Your task to perform on an android device: Turn off the flashlight Image 0: 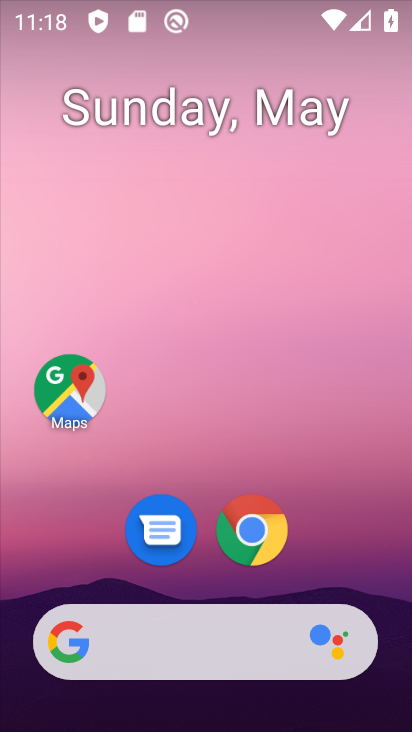
Step 0: drag from (196, 614) to (272, 34)
Your task to perform on an android device: Turn off the flashlight Image 1: 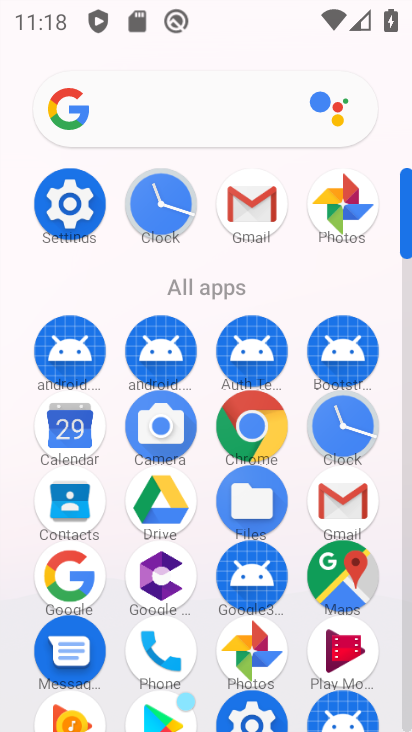
Step 1: click (66, 191)
Your task to perform on an android device: Turn off the flashlight Image 2: 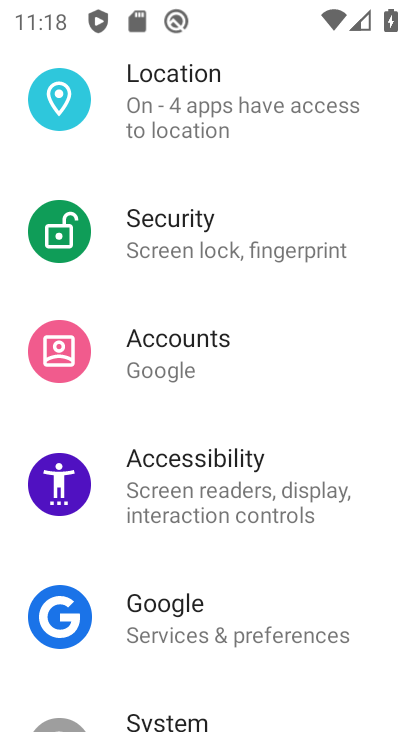
Step 2: drag from (194, 229) to (213, 655)
Your task to perform on an android device: Turn off the flashlight Image 3: 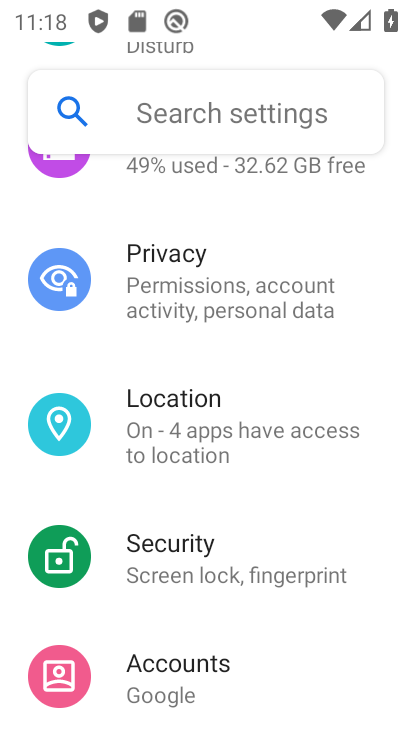
Step 3: click (164, 108)
Your task to perform on an android device: Turn off the flashlight Image 4: 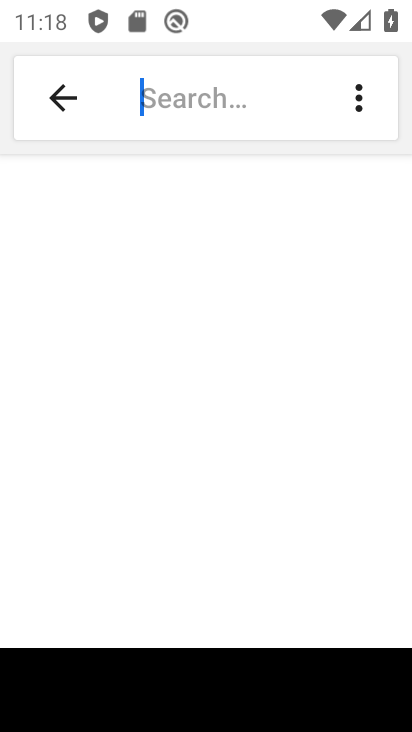
Step 4: type "flashlight"
Your task to perform on an android device: Turn off the flashlight Image 5: 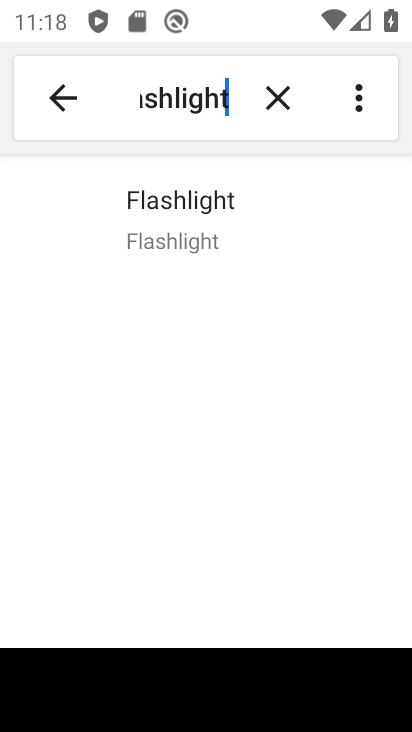
Step 5: click (163, 208)
Your task to perform on an android device: Turn off the flashlight Image 6: 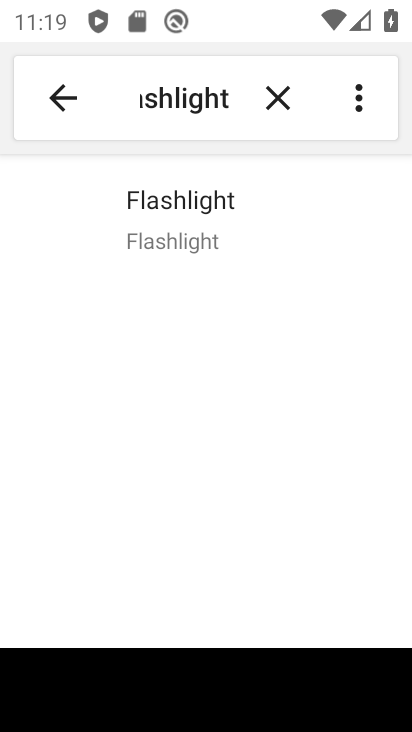
Step 6: task complete